Your task to perform on an android device: What is the news today? Image 0: 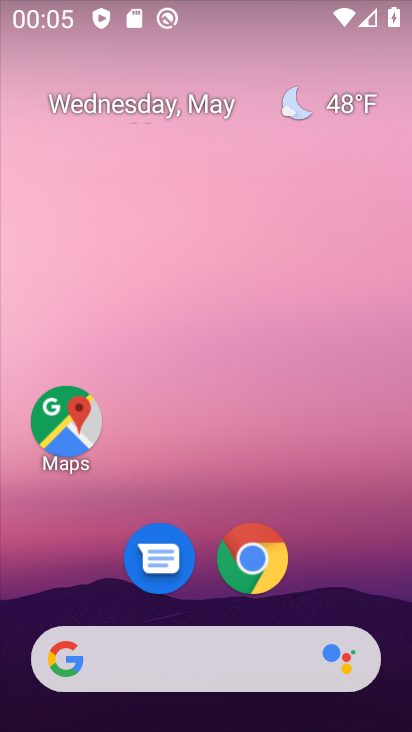
Step 0: drag from (377, 556) to (372, 211)
Your task to perform on an android device: What is the news today? Image 1: 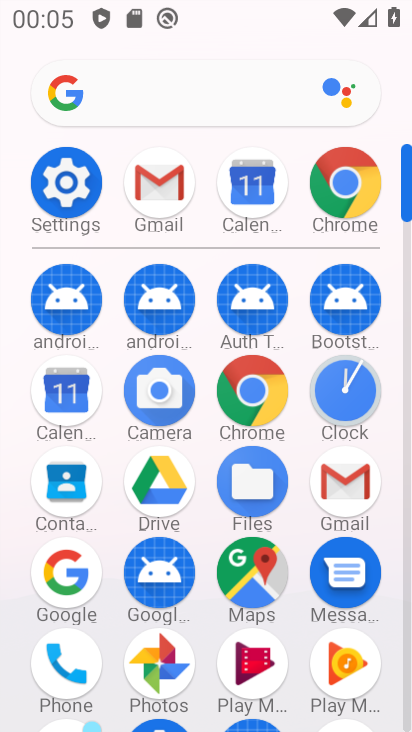
Step 1: click (236, 404)
Your task to perform on an android device: What is the news today? Image 2: 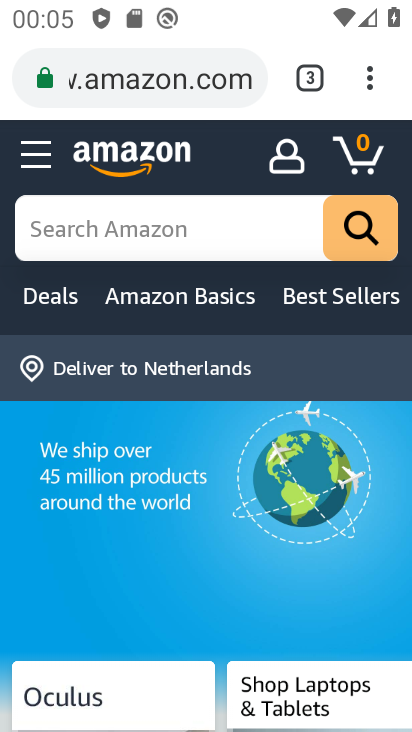
Step 2: click (143, 86)
Your task to perform on an android device: What is the news today? Image 3: 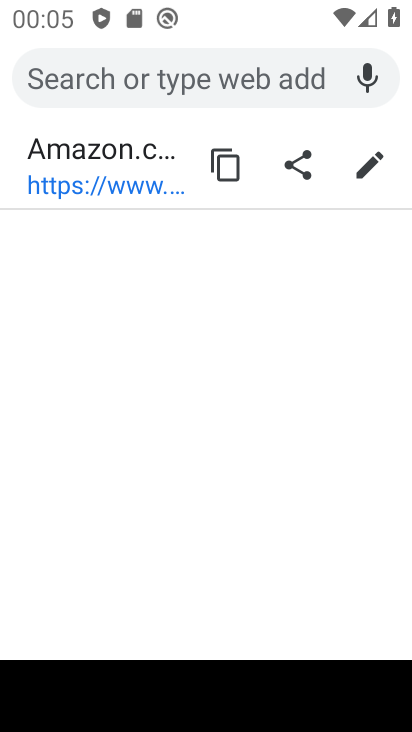
Step 3: type "what is the news today"
Your task to perform on an android device: What is the news today? Image 4: 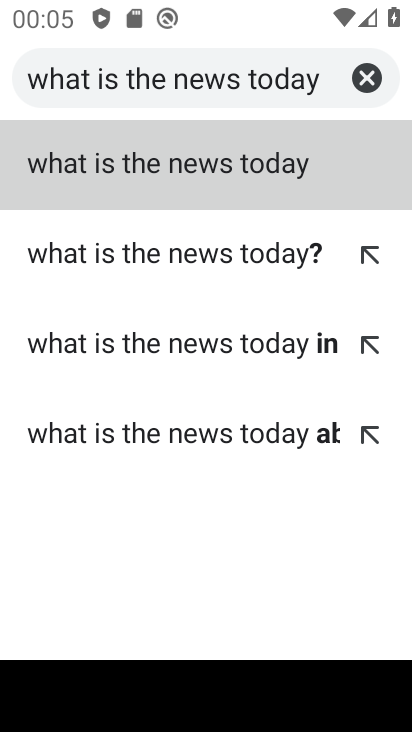
Step 4: click (192, 162)
Your task to perform on an android device: What is the news today? Image 5: 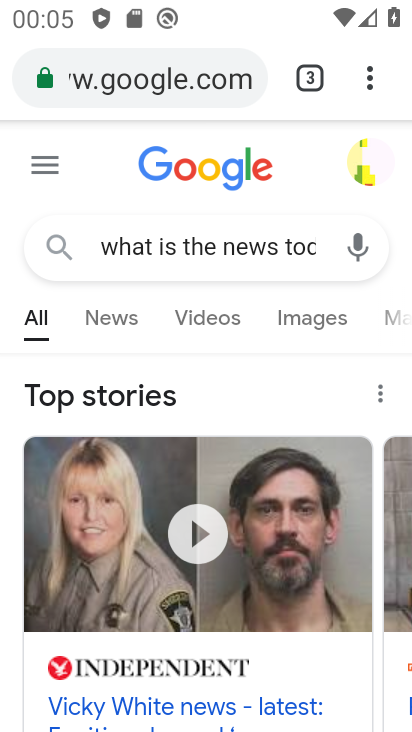
Step 5: task complete